Your task to perform on an android device: check storage Image 0: 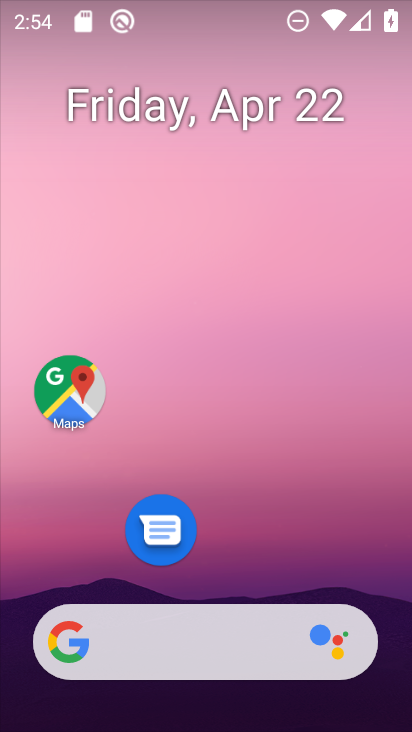
Step 0: drag from (259, 573) to (219, 0)
Your task to perform on an android device: check storage Image 1: 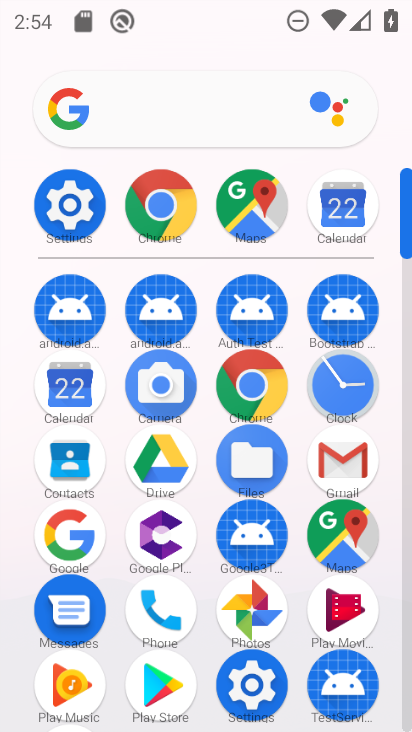
Step 1: click (66, 204)
Your task to perform on an android device: check storage Image 2: 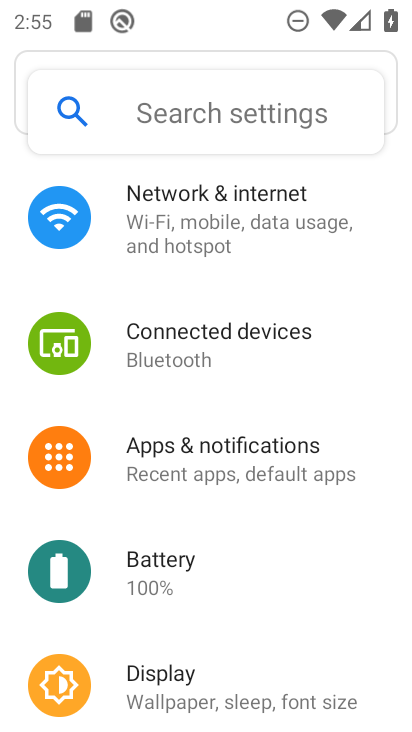
Step 2: drag from (238, 260) to (241, 651)
Your task to perform on an android device: check storage Image 3: 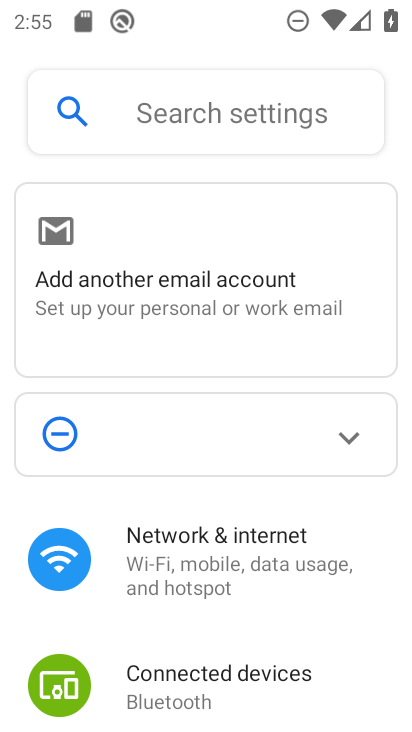
Step 3: drag from (184, 598) to (160, 203)
Your task to perform on an android device: check storage Image 4: 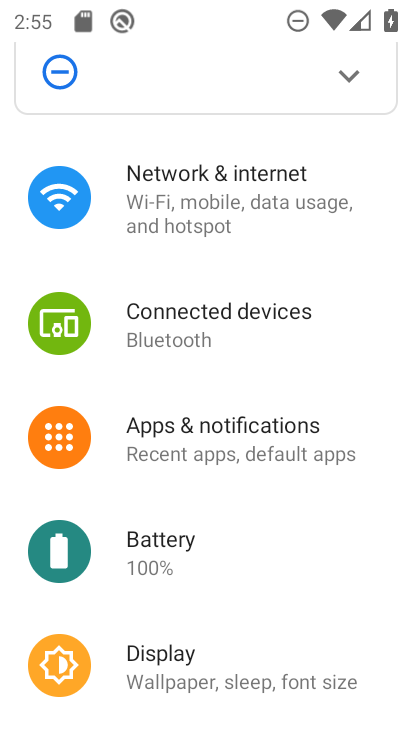
Step 4: drag from (195, 595) to (170, 141)
Your task to perform on an android device: check storage Image 5: 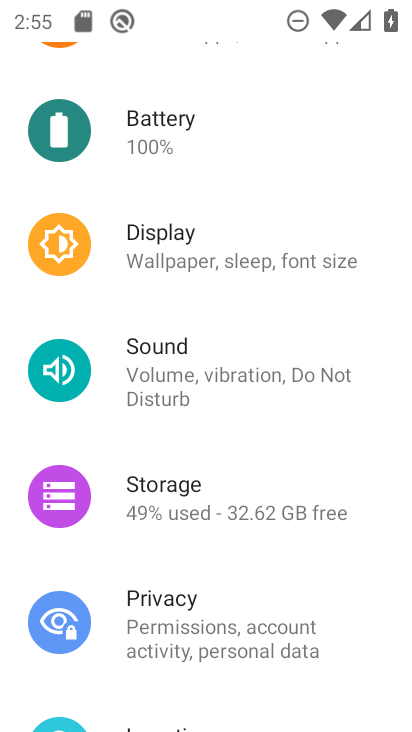
Step 5: drag from (228, 556) to (200, 168)
Your task to perform on an android device: check storage Image 6: 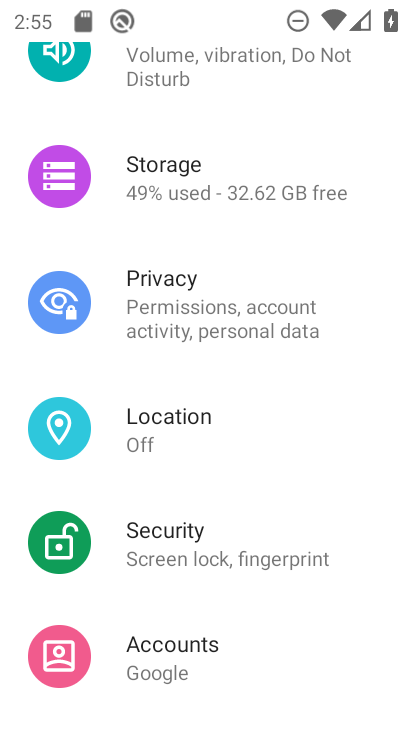
Step 6: click (136, 165)
Your task to perform on an android device: check storage Image 7: 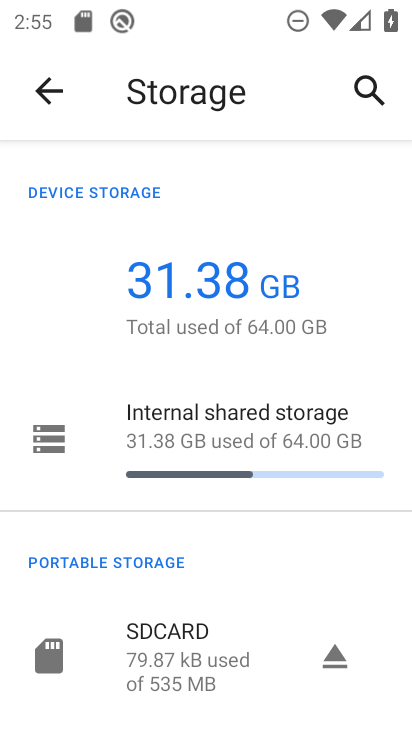
Step 7: task complete